Your task to perform on an android device: Open Chrome and go to settings Image 0: 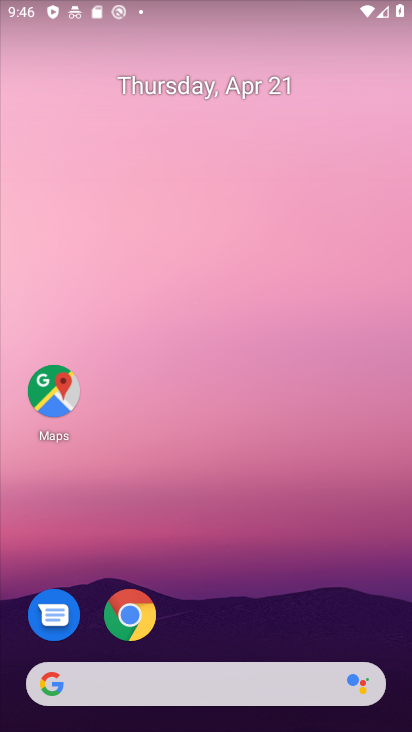
Step 0: click (129, 612)
Your task to perform on an android device: Open Chrome and go to settings Image 1: 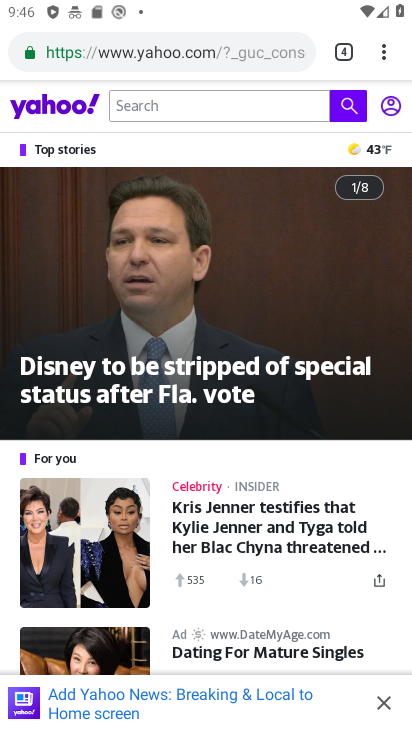
Step 1: task complete